Your task to perform on an android device: turn off improve location accuracy Image 0: 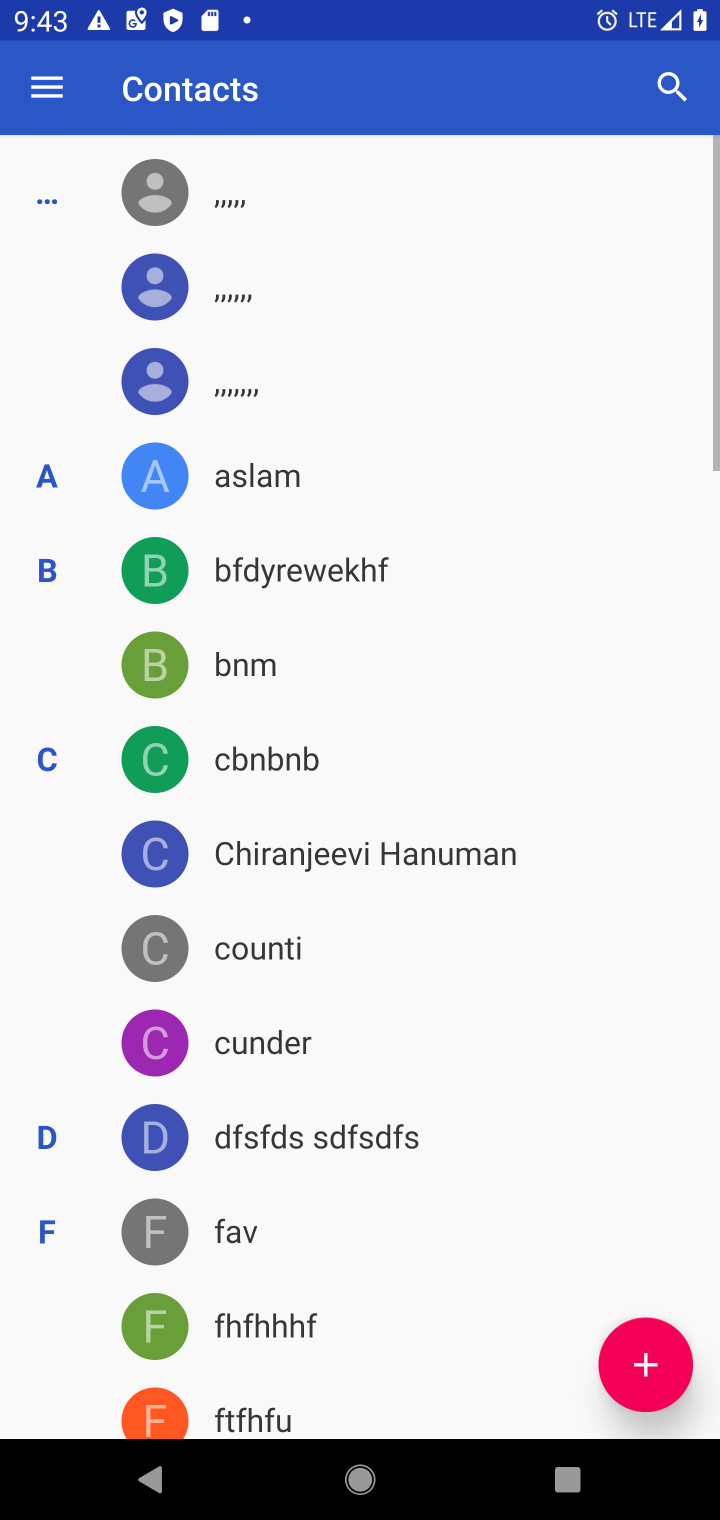
Step 0: press home button
Your task to perform on an android device: turn off improve location accuracy Image 1: 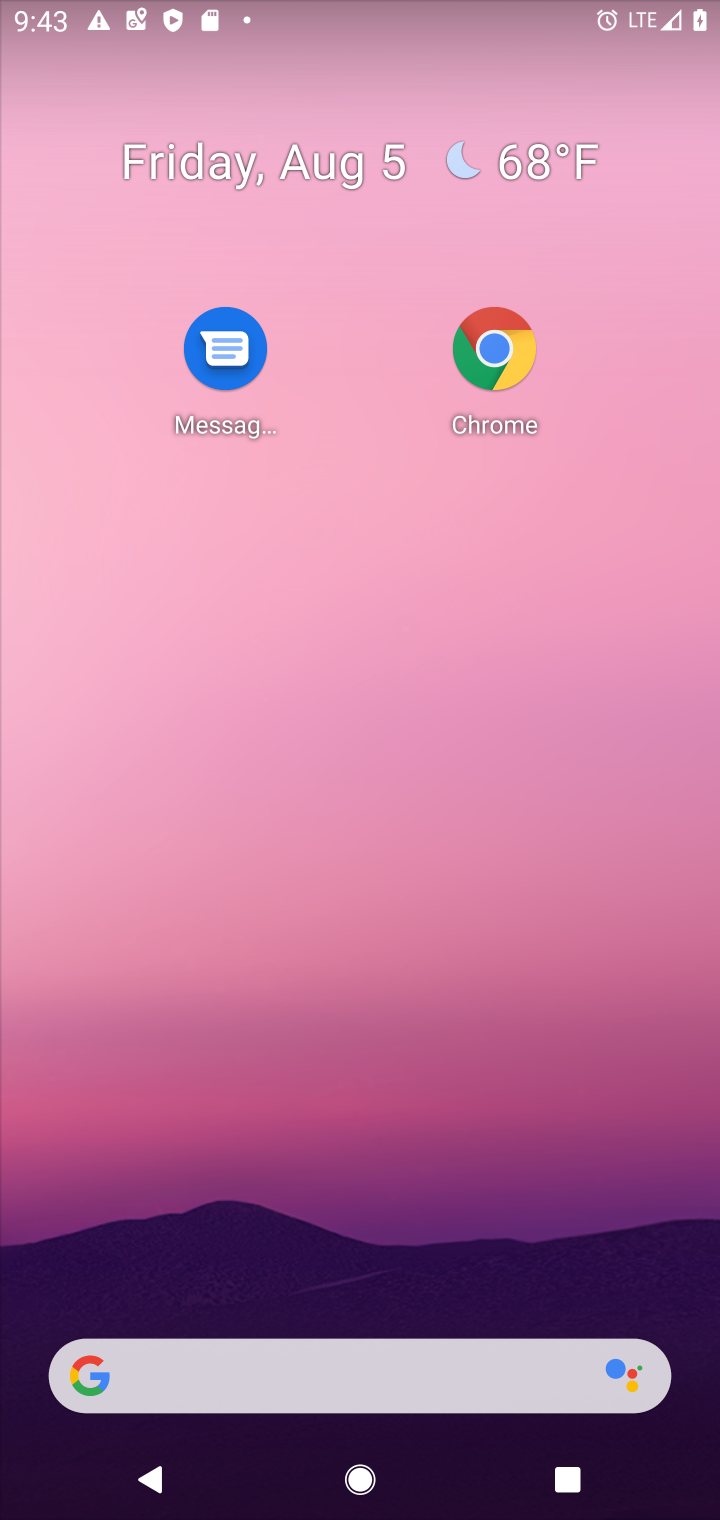
Step 1: drag from (458, 1424) to (425, 469)
Your task to perform on an android device: turn off improve location accuracy Image 2: 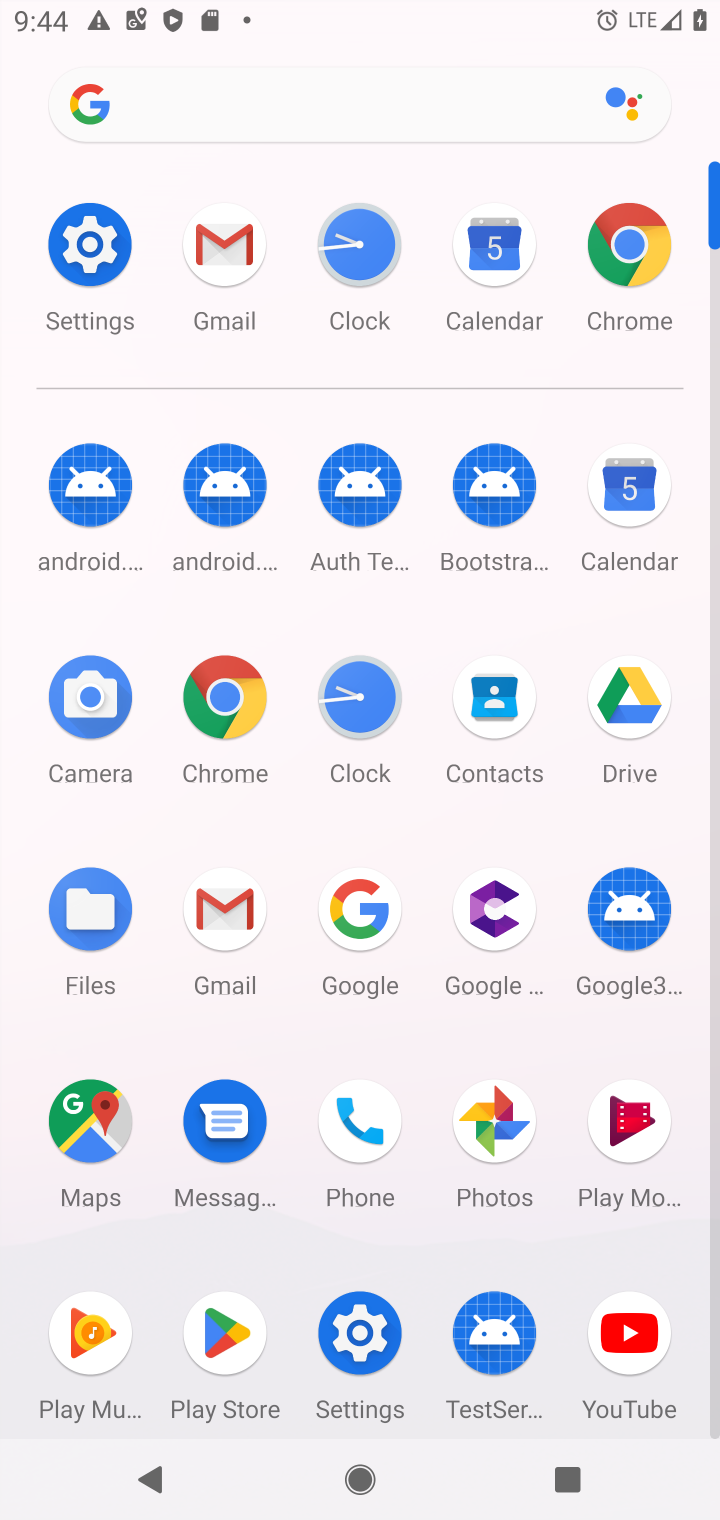
Step 2: click (115, 253)
Your task to perform on an android device: turn off improve location accuracy Image 3: 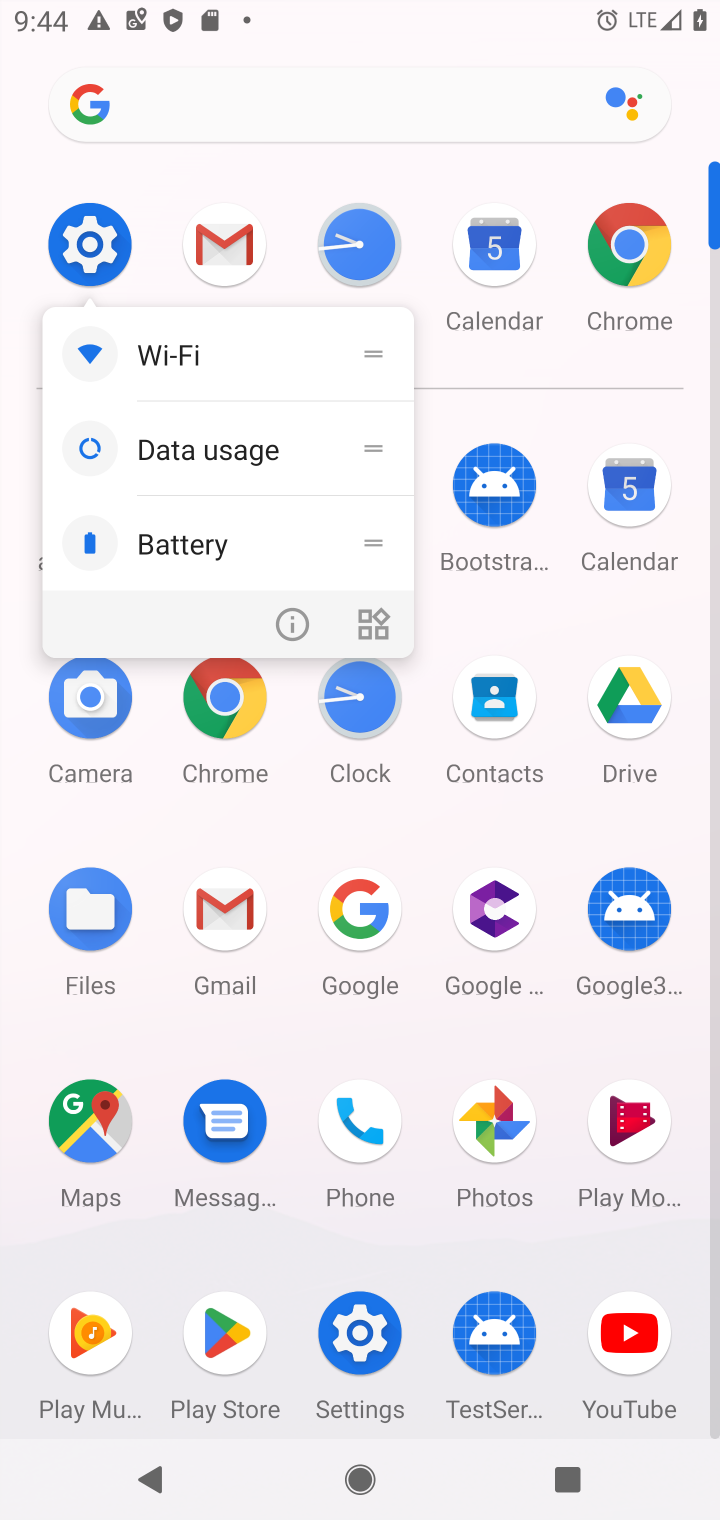
Step 3: click (90, 251)
Your task to perform on an android device: turn off improve location accuracy Image 4: 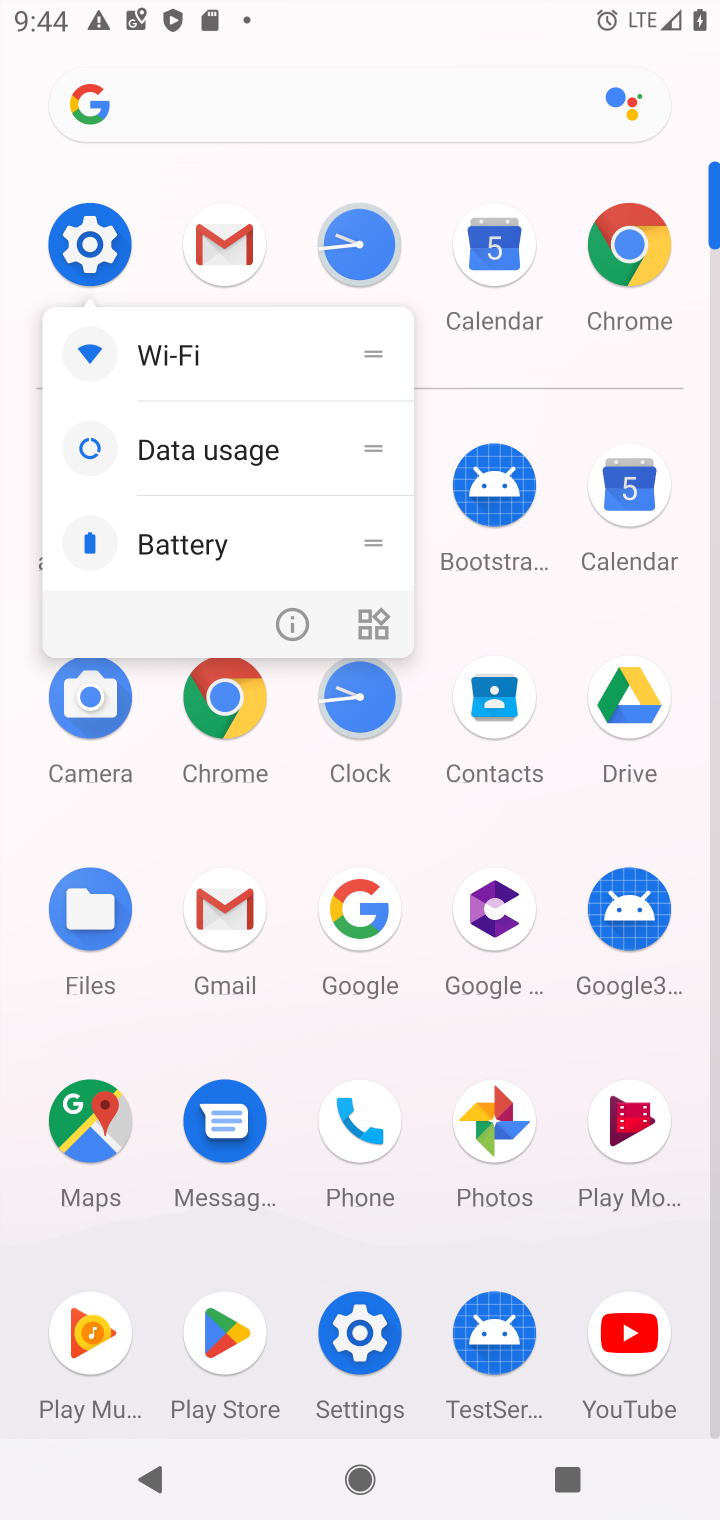
Step 4: click (99, 228)
Your task to perform on an android device: turn off improve location accuracy Image 5: 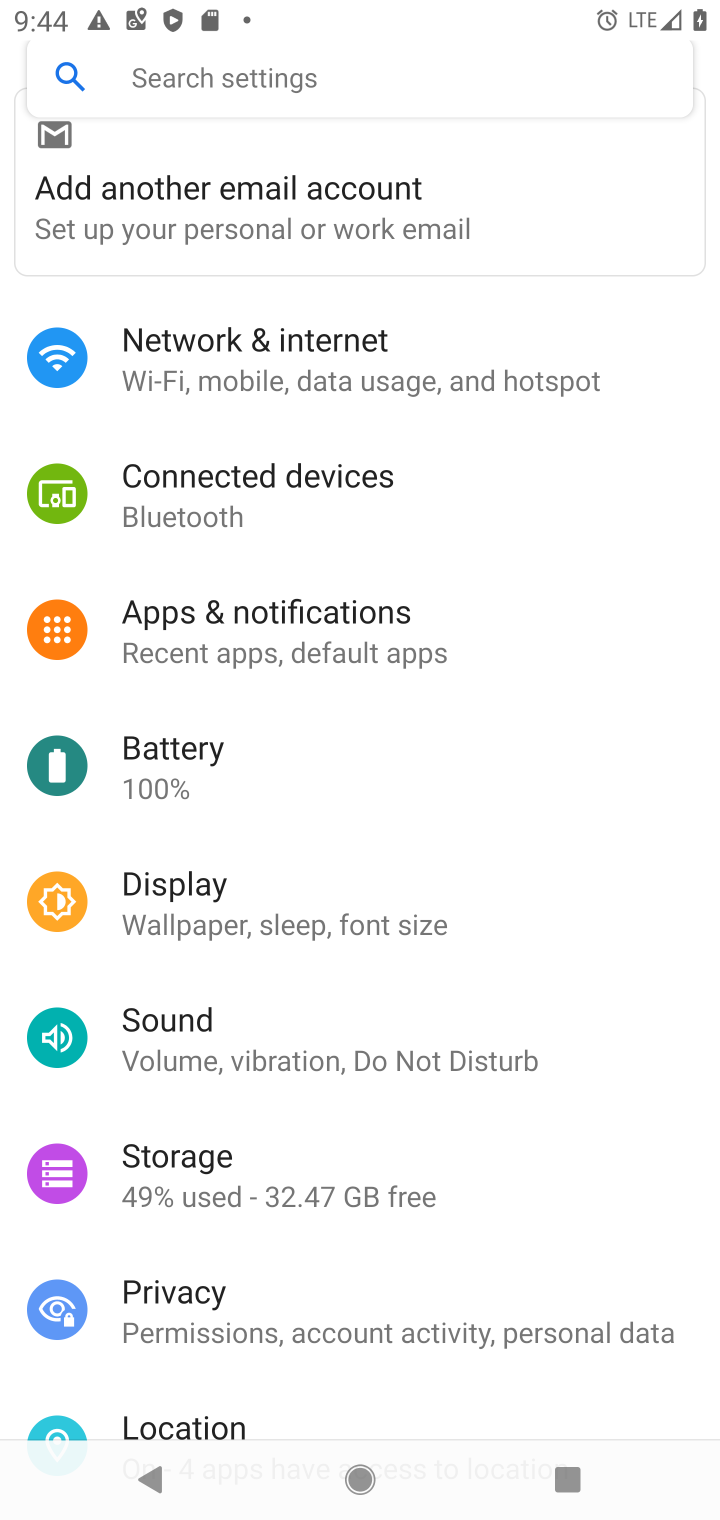
Step 5: click (249, 1423)
Your task to perform on an android device: turn off improve location accuracy Image 6: 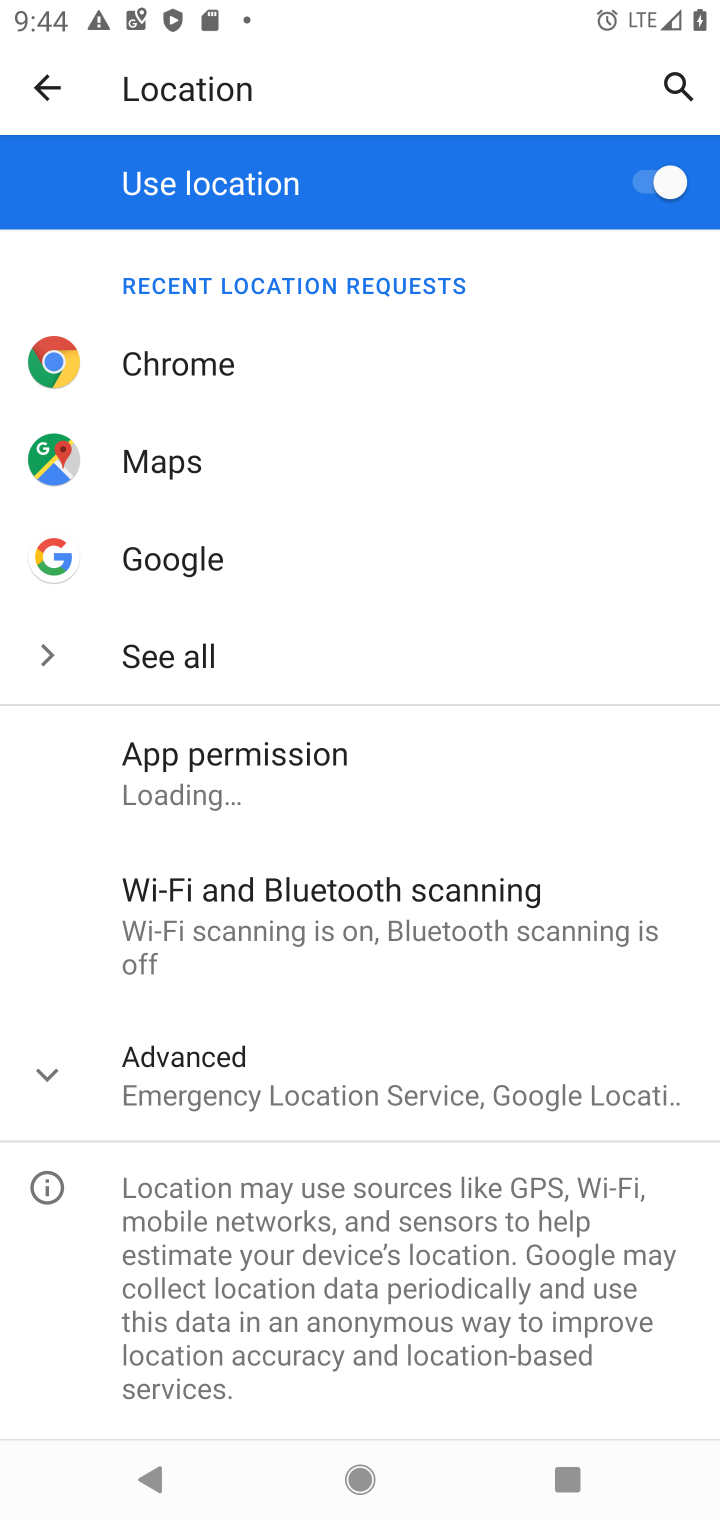
Step 6: click (41, 1058)
Your task to perform on an android device: turn off improve location accuracy Image 7: 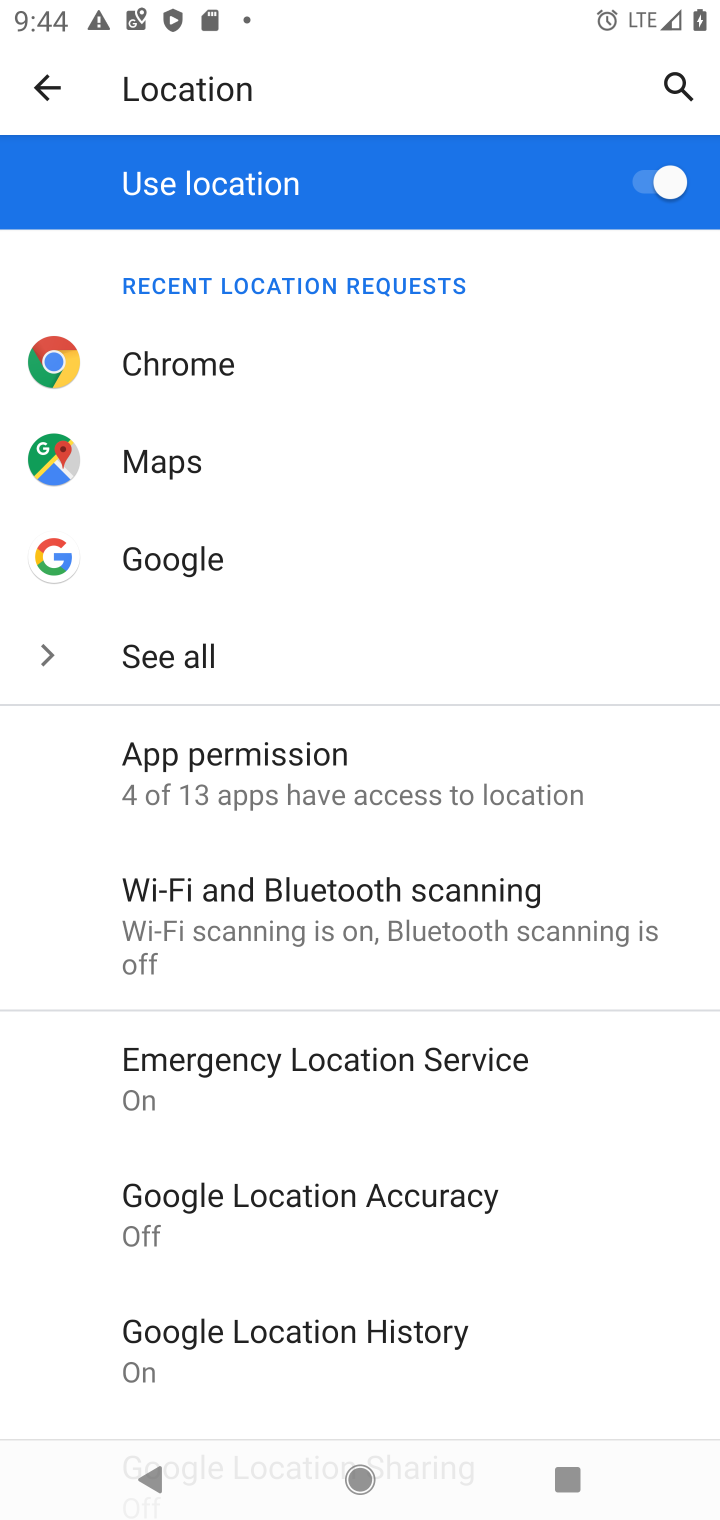
Step 7: click (352, 1180)
Your task to perform on an android device: turn off improve location accuracy Image 8: 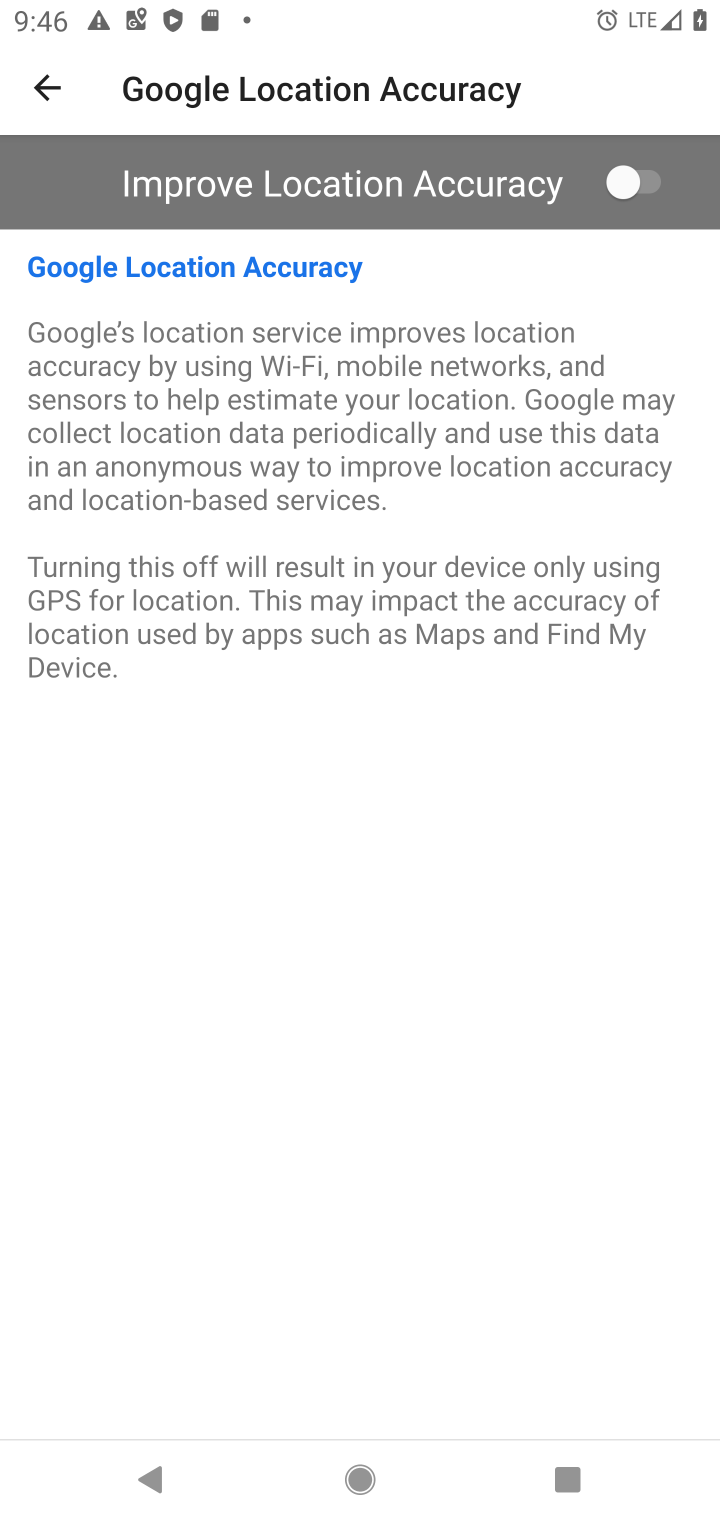
Step 8: task complete